Your task to perform on an android device: Search for the best selling TV on Best Buy. Image 0: 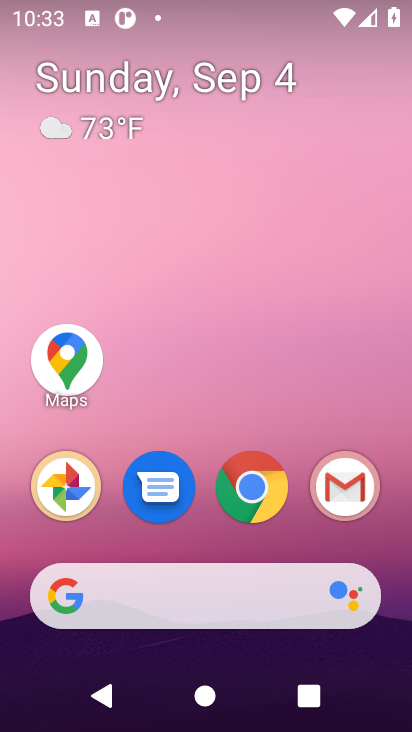
Step 0: click (159, 608)
Your task to perform on an android device: Search for the best selling TV on Best Buy. Image 1: 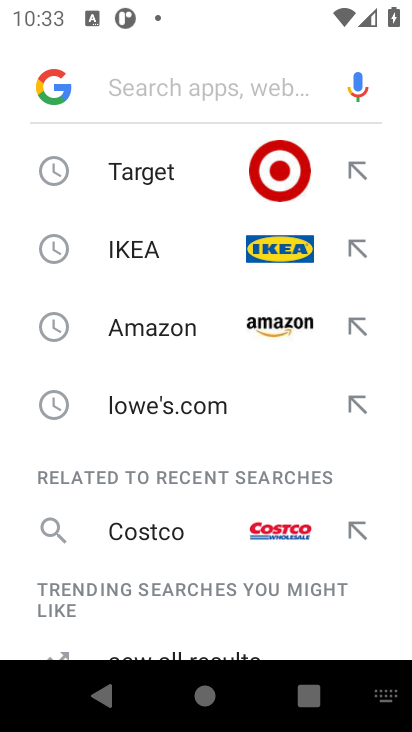
Step 1: click (159, 608)
Your task to perform on an android device: Search for the best selling TV on Best Buy. Image 2: 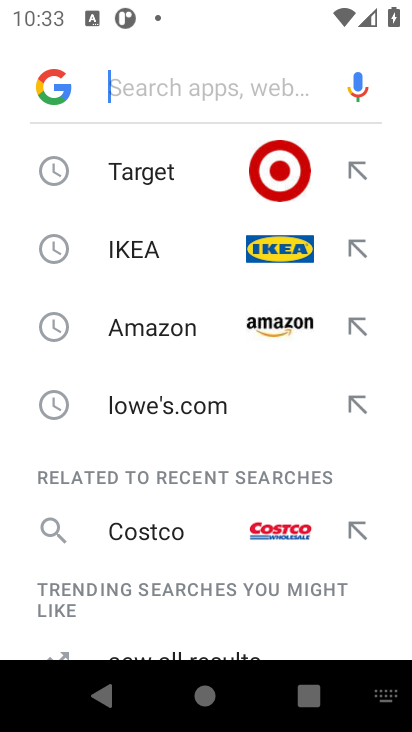
Step 2: type " Best Buy.com"
Your task to perform on an android device: Search for the best selling TV on Best Buy. Image 3: 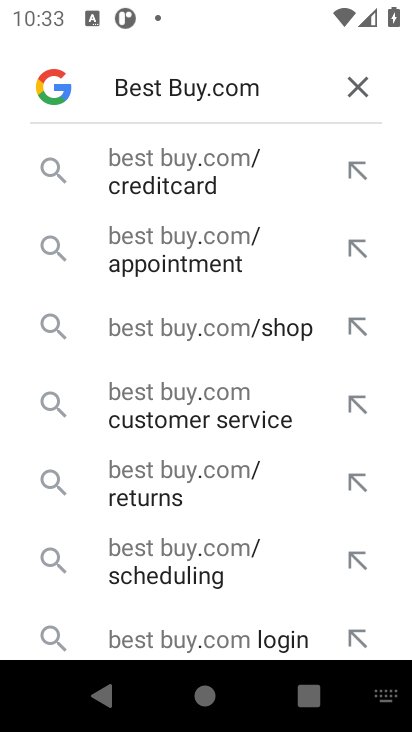
Step 3: click (179, 326)
Your task to perform on an android device: Search for the best selling TV on Best Buy. Image 4: 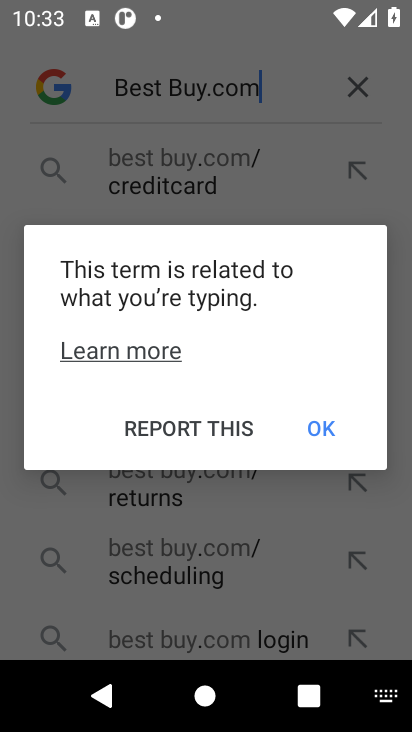
Step 4: click (309, 421)
Your task to perform on an android device: Search for the best selling TV on Best Buy. Image 5: 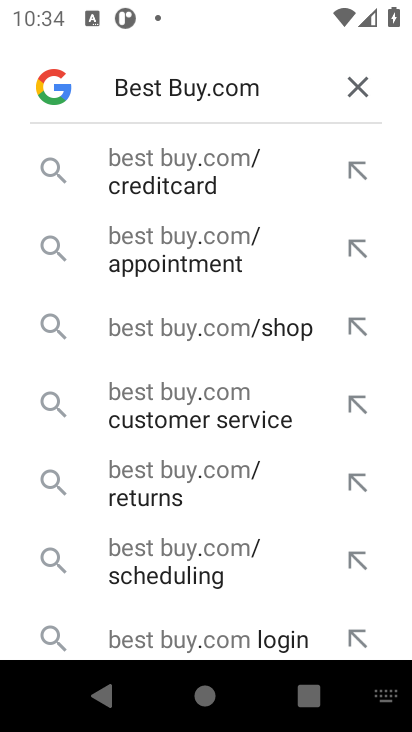
Step 5: click (177, 329)
Your task to perform on an android device: Search for the best selling TV on Best Buy. Image 6: 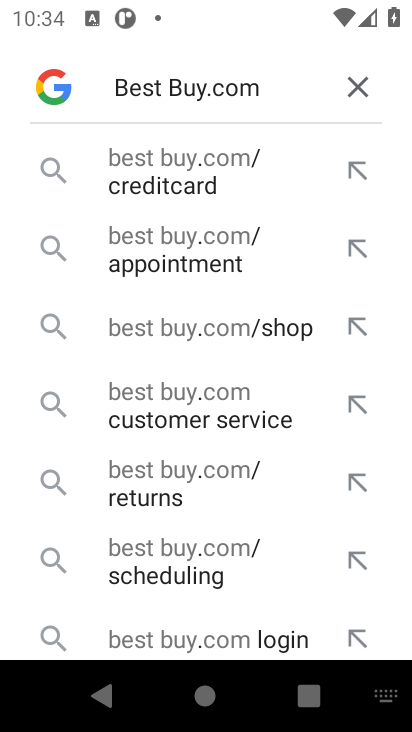
Step 6: click (177, 329)
Your task to perform on an android device: Search for the best selling TV on Best Buy. Image 7: 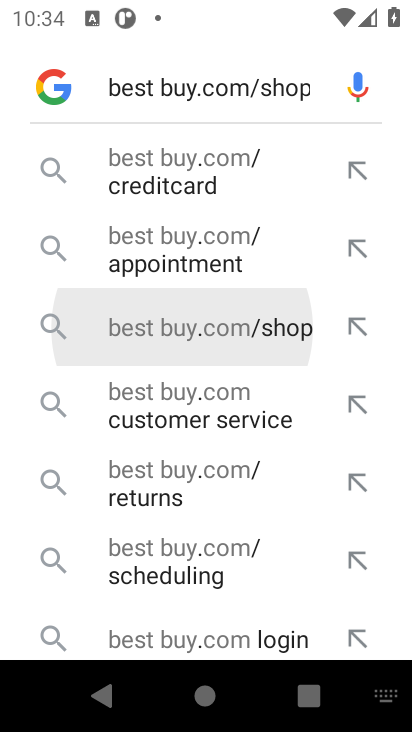
Step 7: click (177, 329)
Your task to perform on an android device: Search for the best selling TV on Best Buy. Image 8: 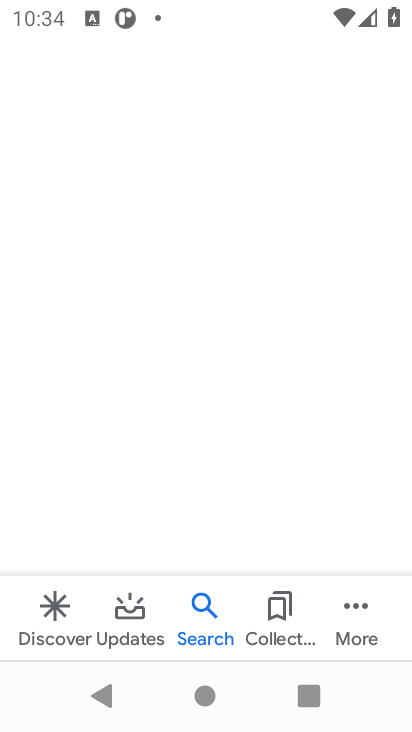
Step 8: click (177, 329)
Your task to perform on an android device: Search for the best selling TV on Best Buy. Image 9: 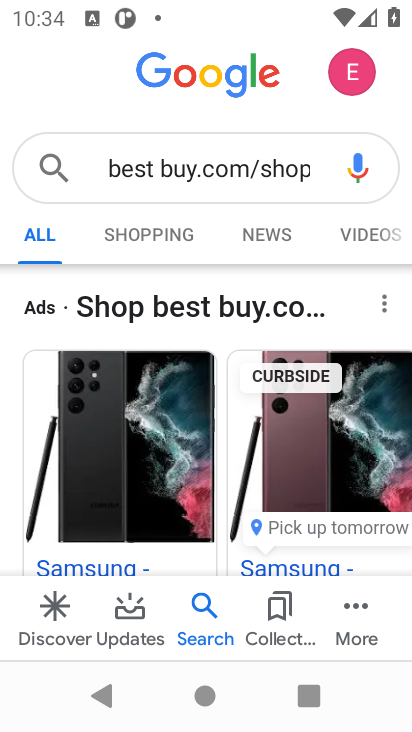
Step 9: drag from (159, 343) to (122, 41)
Your task to perform on an android device: Search for the best selling TV on Best Buy. Image 10: 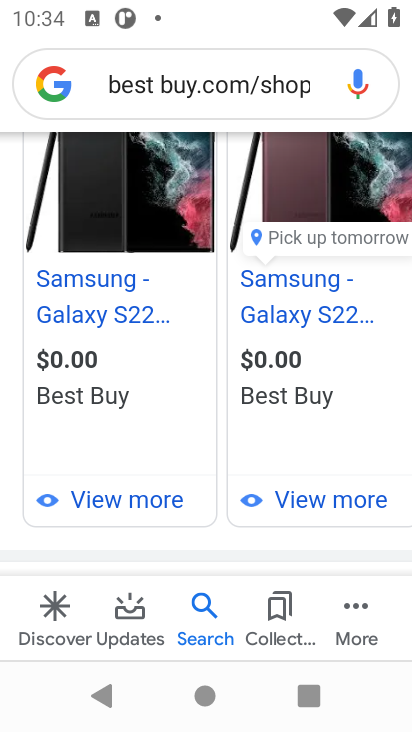
Step 10: drag from (90, 525) to (77, 227)
Your task to perform on an android device: Search for the best selling TV on Best Buy. Image 11: 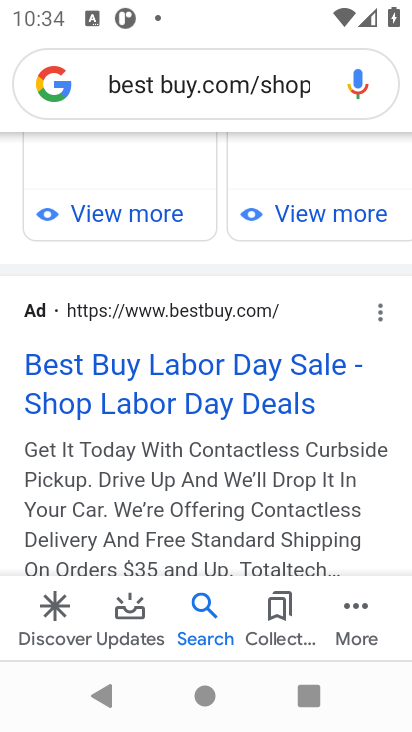
Step 11: click (125, 390)
Your task to perform on an android device: Search for the best selling TV on Best Buy. Image 12: 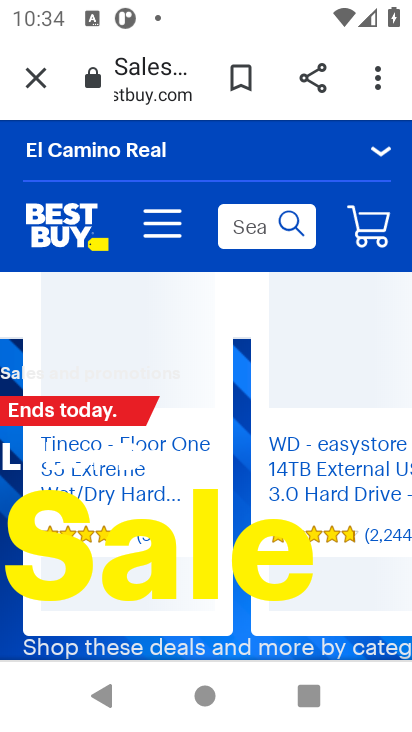
Step 12: click (285, 219)
Your task to perform on an android device: Search for the best selling TV on Best Buy. Image 13: 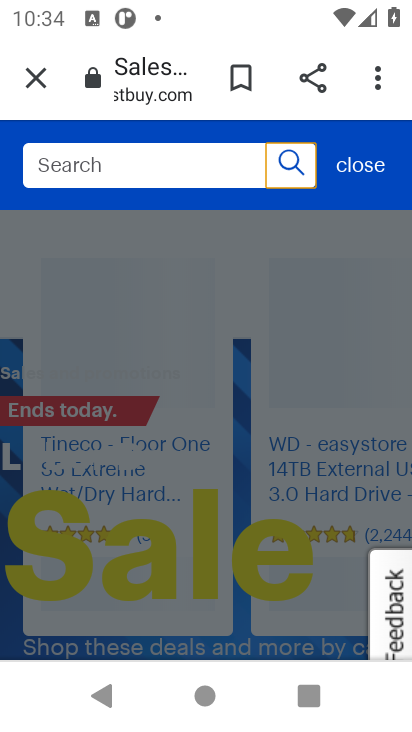
Step 13: click (190, 166)
Your task to perform on an android device: Search for the best selling TV on Best Buy. Image 14: 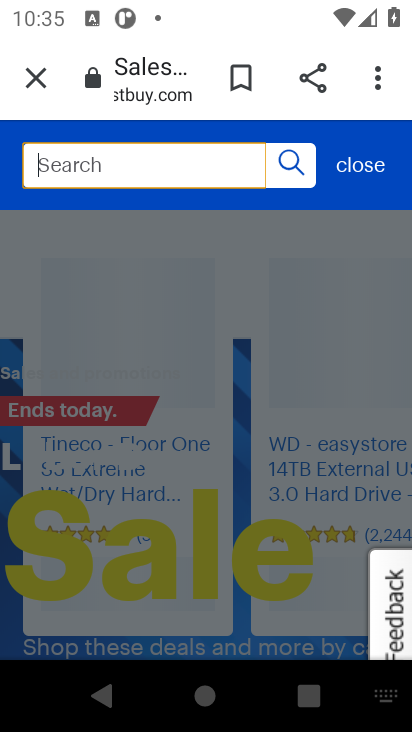
Step 14: type "best selling TV"
Your task to perform on an android device: Search for the best selling TV on Best Buy. Image 15: 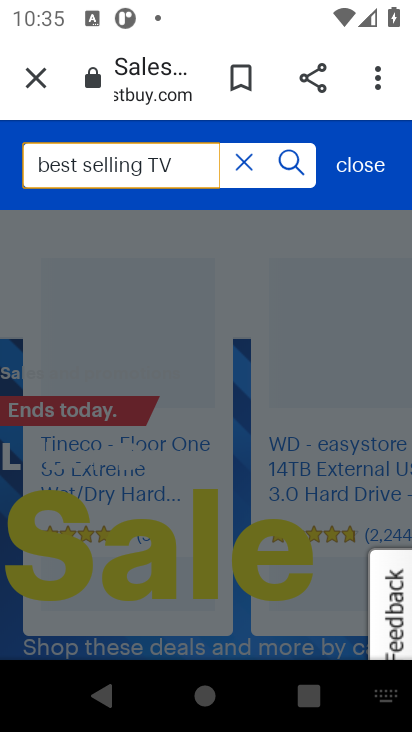
Step 15: click (282, 158)
Your task to perform on an android device: Search for the best selling TV on Best Buy. Image 16: 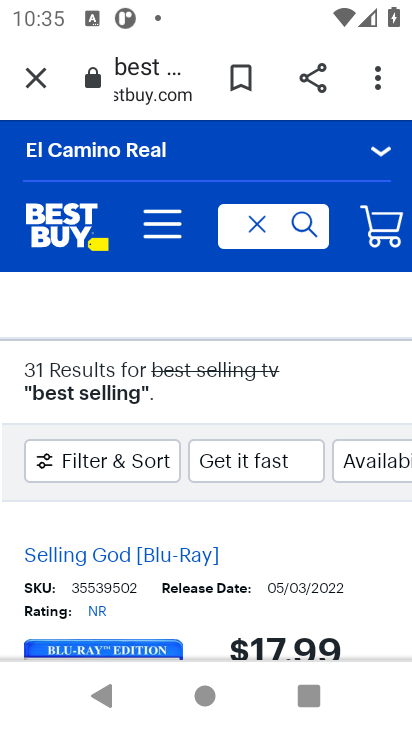
Step 16: task complete